Your task to perform on an android device: When is my next appointment? Image 0: 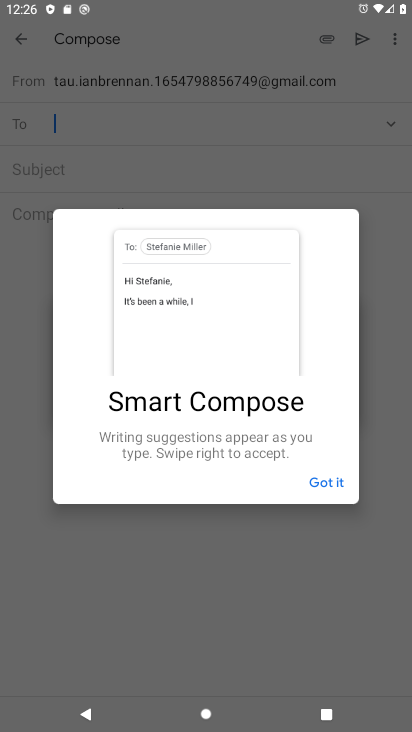
Step 0: press back button
Your task to perform on an android device: When is my next appointment? Image 1: 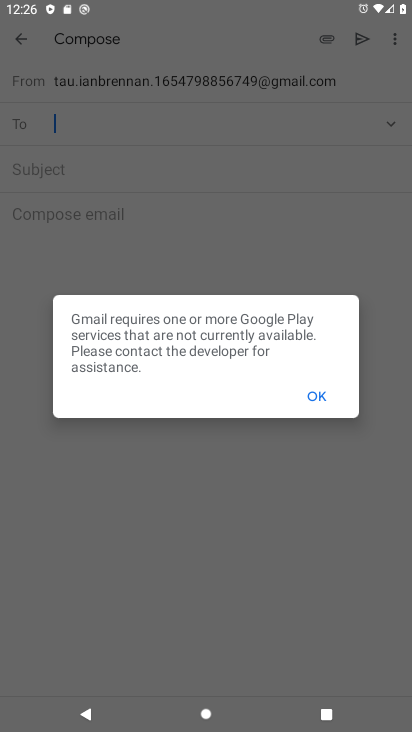
Step 1: press back button
Your task to perform on an android device: When is my next appointment? Image 2: 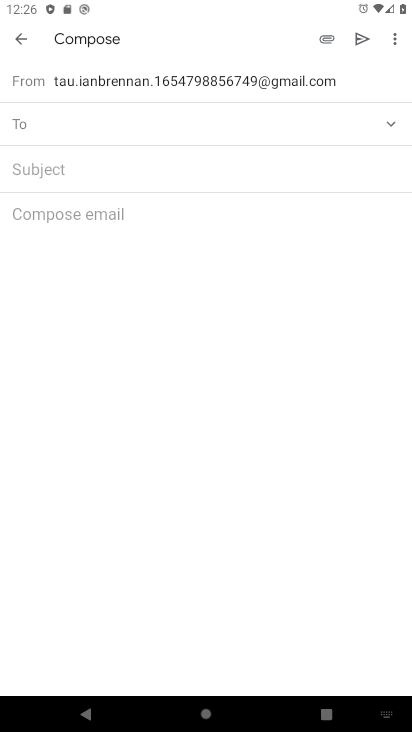
Step 2: press home button
Your task to perform on an android device: When is my next appointment? Image 3: 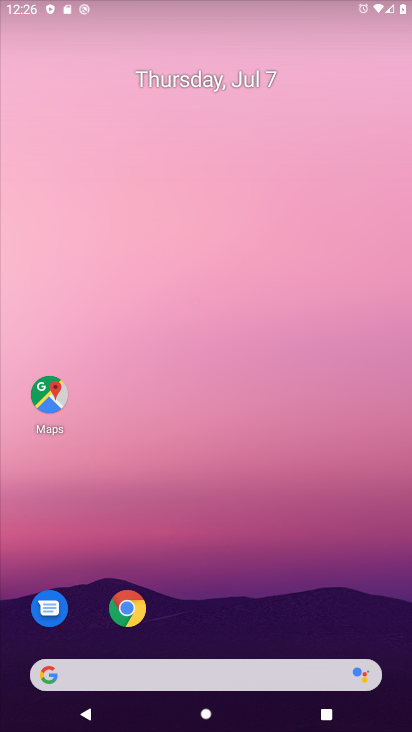
Step 3: drag from (235, 609) to (316, 69)
Your task to perform on an android device: When is my next appointment? Image 4: 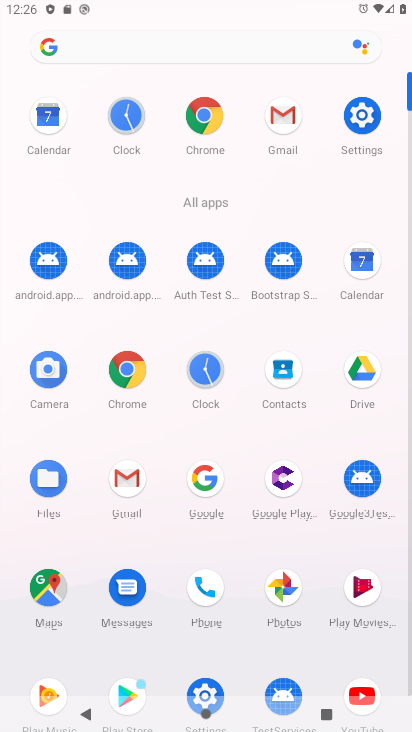
Step 4: click (362, 270)
Your task to perform on an android device: When is my next appointment? Image 5: 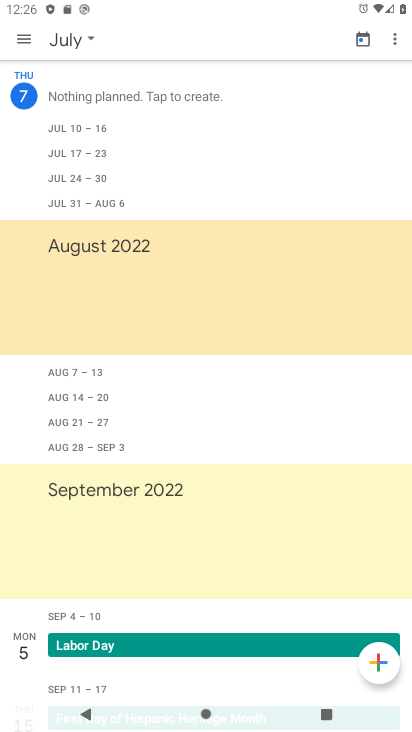
Step 5: press back button
Your task to perform on an android device: When is my next appointment? Image 6: 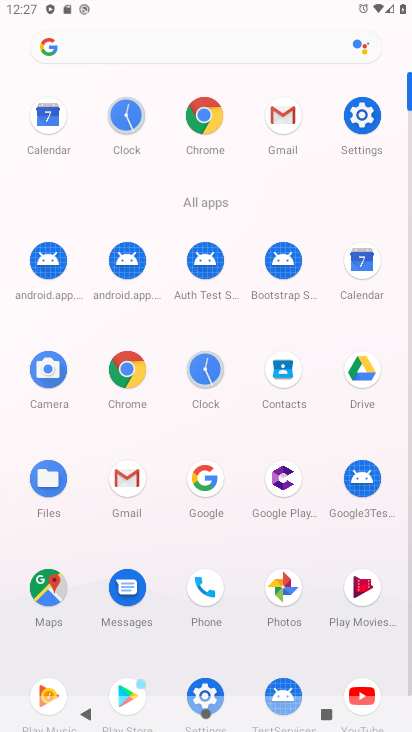
Step 6: click (377, 275)
Your task to perform on an android device: When is my next appointment? Image 7: 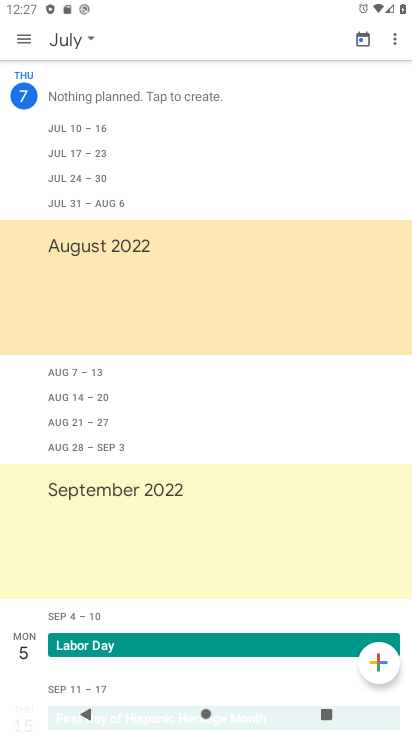
Step 7: task complete